Your task to perform on an android device: turn off wifi Image 0: 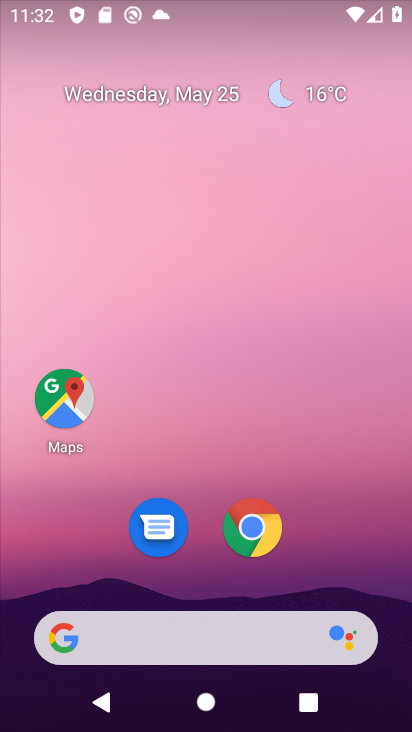
Step 0: drag from (246, 2) to (262, 484)
Your task to perform on an android device: turn off wifi Image 1: 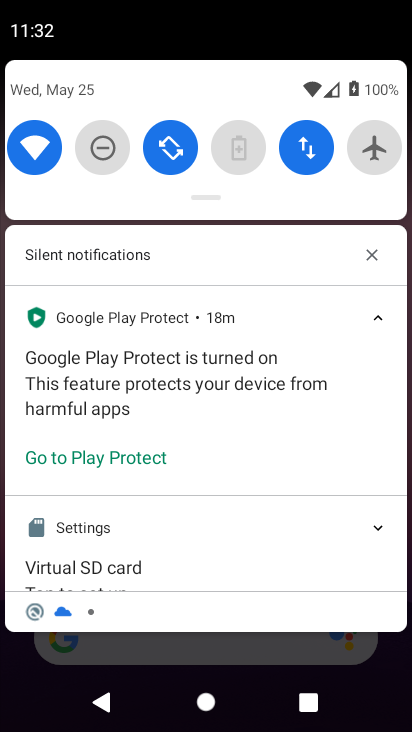
Step 1: click (40, 158)
Your task to perform on an android device: turn off wifi Image 2: 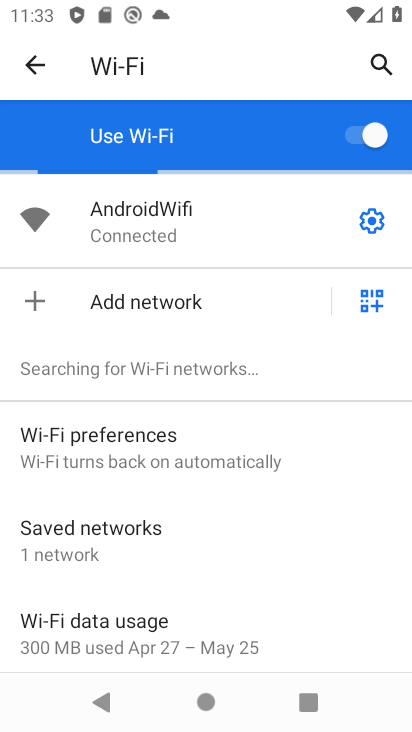
Step 2: task complete